Your task to perform on an android device: empty trash in the gmail app Image 0: 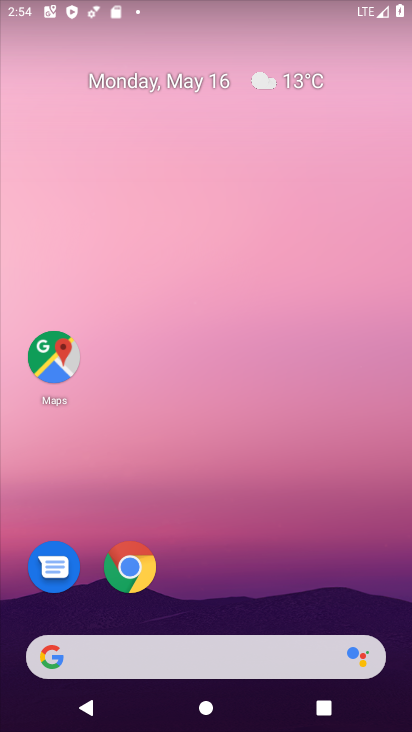
Step 0: drag from (209, 500) to (209, 151)
Your task to perform on an android device: empty trash in the gmail app Image 1: 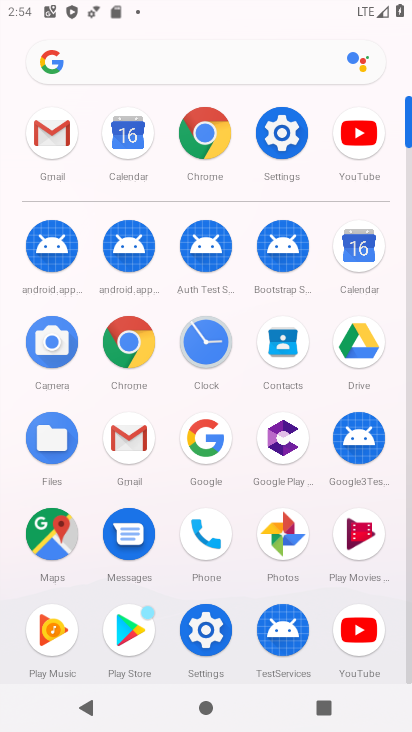
Step 1: click (127, 448)
Your task to perform on an android device: empty trash in the gmail app Image 2: 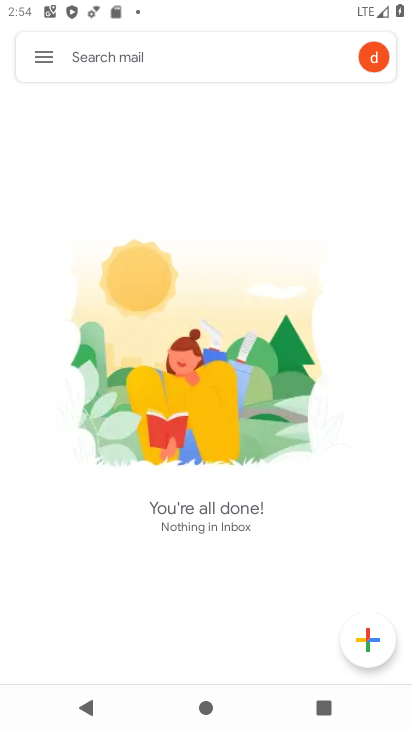
Step 2: click (47, 60)
Your task to perform on an android device: empty trash in the gmail app Image 3: 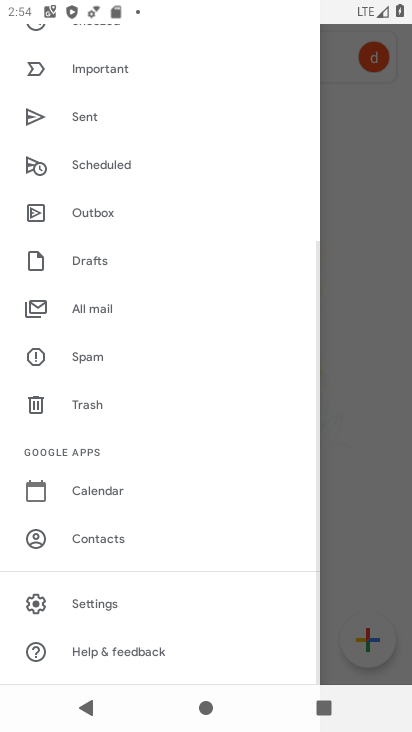
Step 3: click (83, 387)
Your task to perform on an android device: empty trash in the gmail app Image 4: 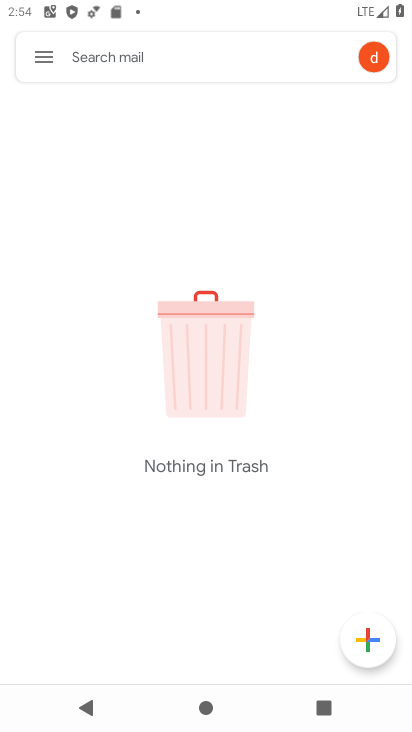
Step 4: task complete